Your task to perform on an android device: check storage Image 0: 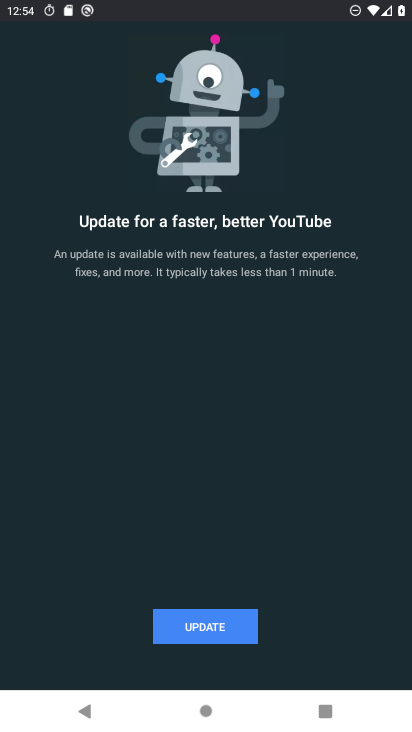
Step 0: press home button
Your task to perform on an android device: check storage Image 1: 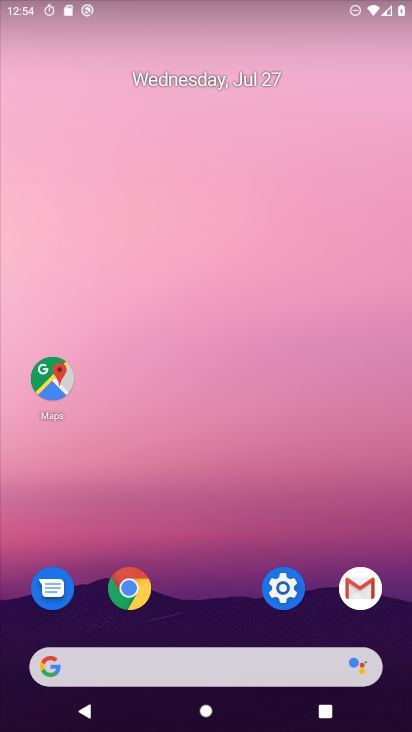
Step 1: drag from (245, 698) to (291, 169)
Your task to perform on an android device: check storage Image 2: 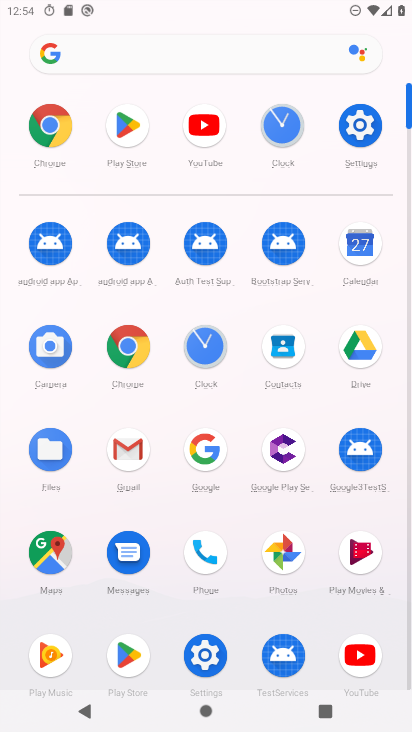
Step 2: click (353, 137)
Your task to perform on an android device: check storage Image 3: 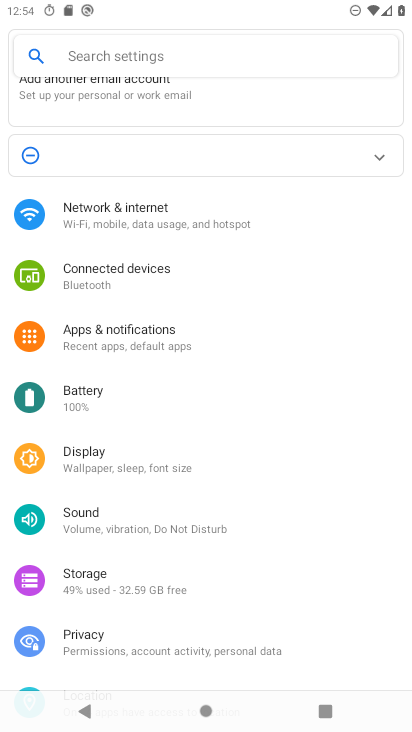
Step 3: click (86, 57)
Your task to perform on an android device: check storage Image 4: 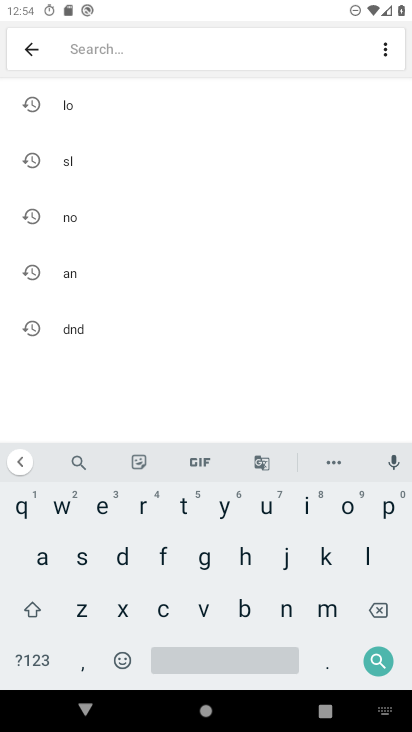
Step 4: click (77, 559)
Your task to perform on an android device: check storage Image 5: 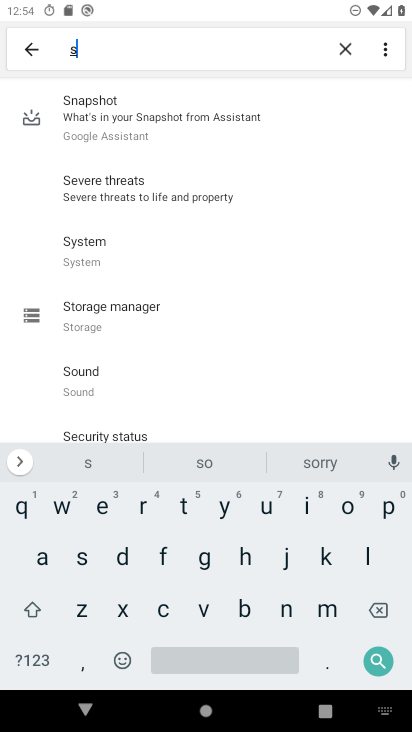
Step 5: click (183, 510)
Your task to perform on an android device: check storage Image 6: 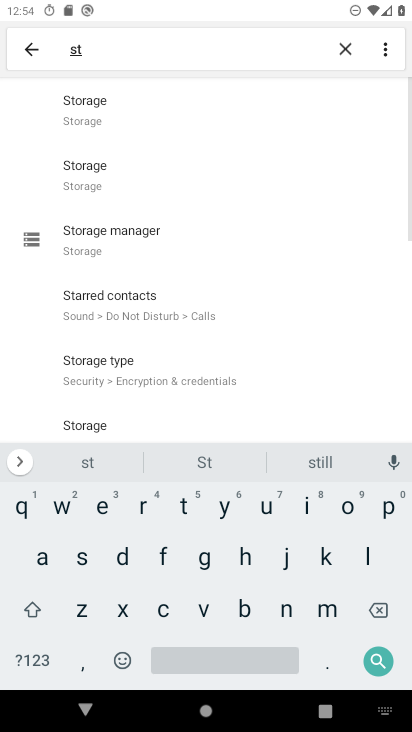
Step 6: click (125, 112)
Your task to perform on an android device: check storage Image 7: 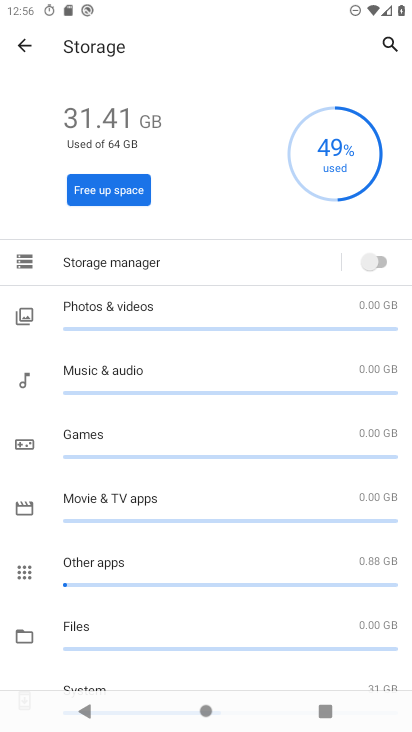
Step 7: task complete